Your task to perform on an android device: Open battery settings Image 0: 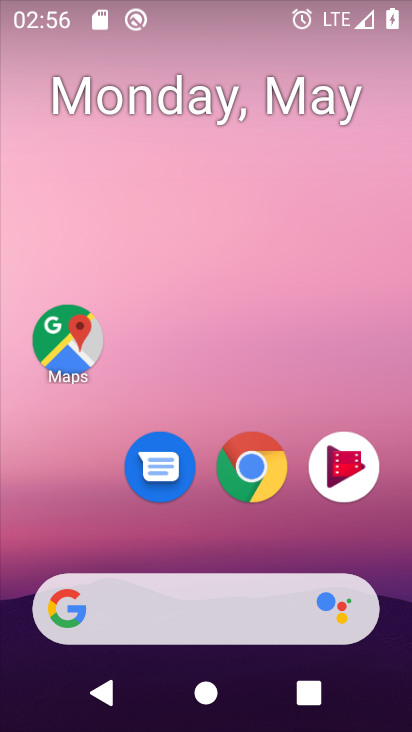
Step 0: drag from (215, 489) to (258, 198)
Your task to perform on an android device: Open battery settings Image 1: 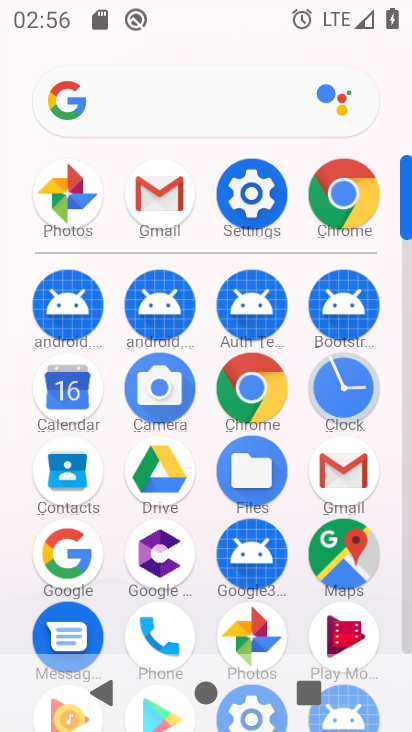
Step 1: click (243, 168)
Your task to perform on an android device: Open battery settings Image 2: 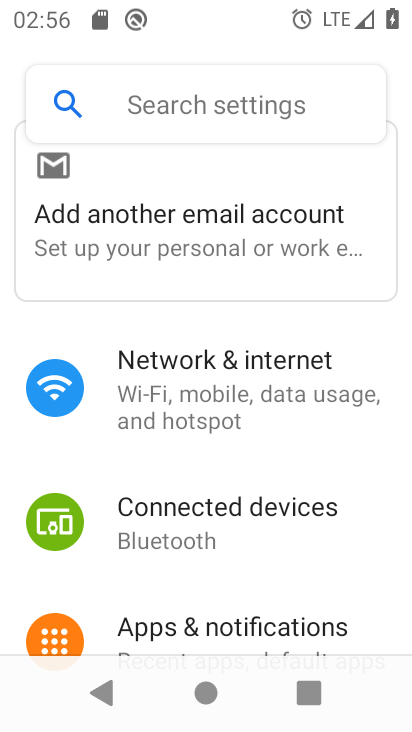
Step 2: drag from (195, 584) to (266, 277)
Your task to perform on an android device: Open battery settings Image 3: 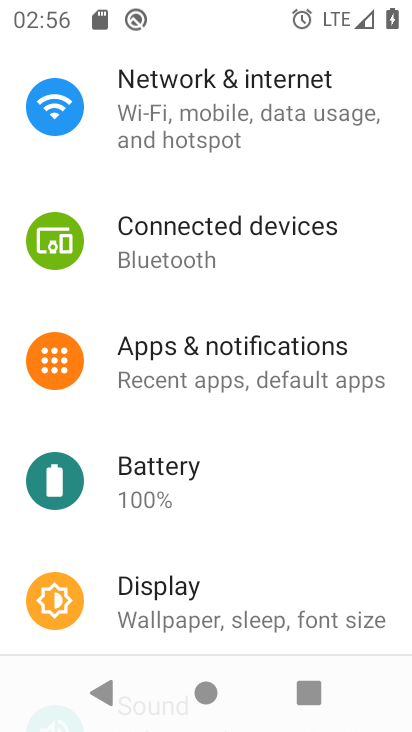
Step 3: click (189, 465)
Your task to perform on an android device: Open battery settings Image 4: 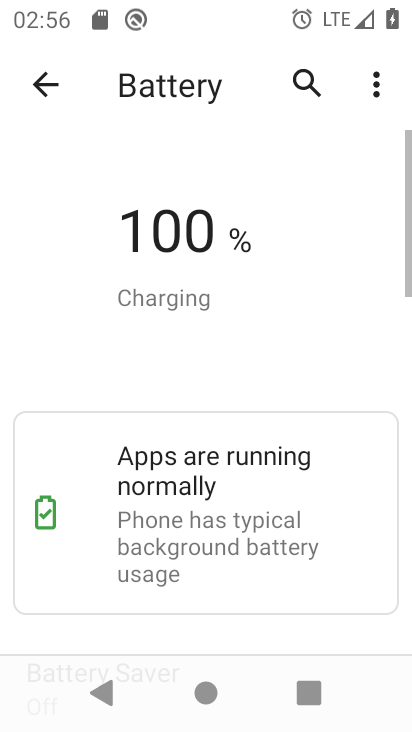
Step 4: task complete